Your task to perform on an android device: Is it going to rain tomorrow? Image 0: 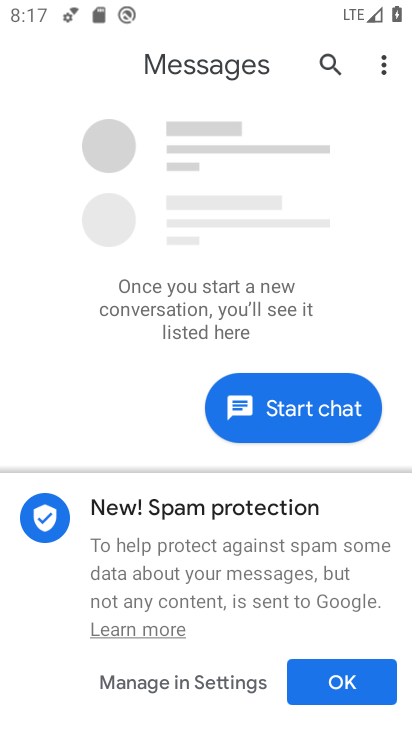
Step 0: click (361, 683)
Your task to perform on an android device: Is it going to rain tomorrow? Image 1: 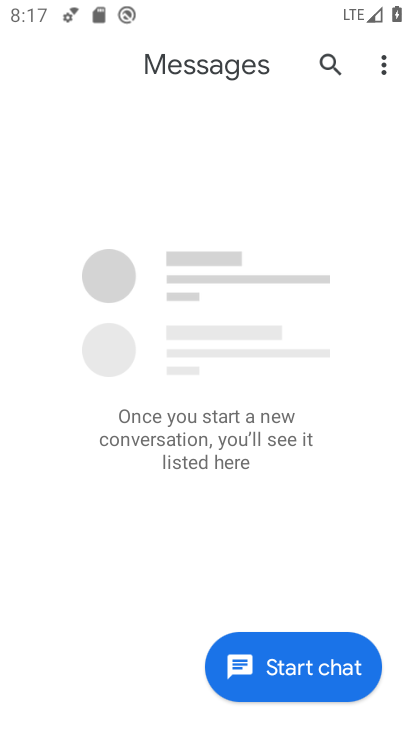
Step 1: press home button
Your task to perform on an android device: Is it going to rain tomorrow? Image 2: 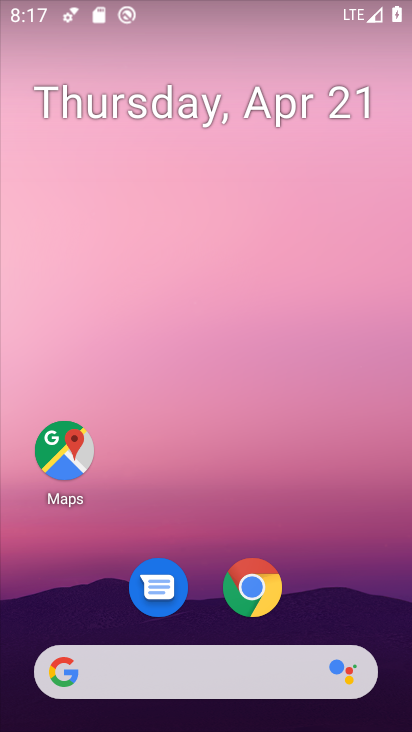
Step 2: drag from (383, 309) to (383, 212)
Your task to perform on an android device: Is it going to rain tomorrow? Image 3: 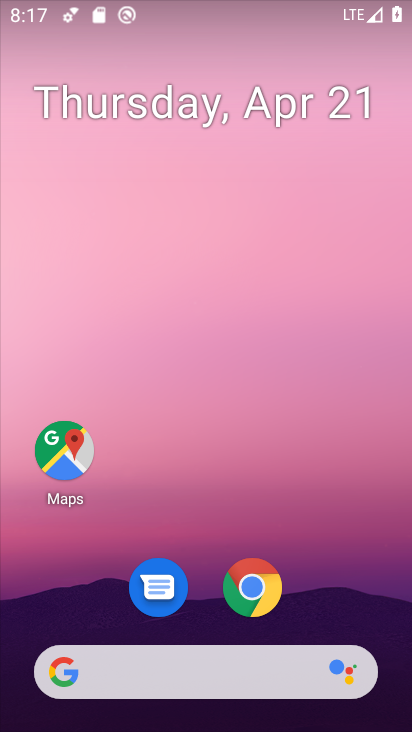
Step 3: drag from (394, 387) to (375, 206)
Your task to perform on an android device: Is it going to rain tomorrow? Image 4: 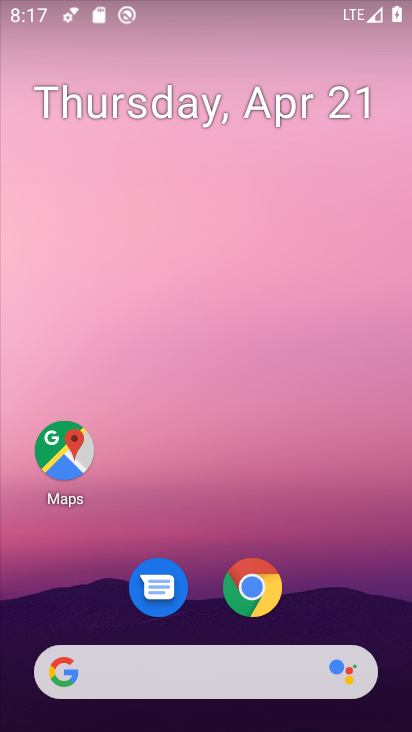
Step 4: drag from (400, 660) to (364, 176)
Your task to perform on an android device: Is it going to rain tomorrow? Image 5: 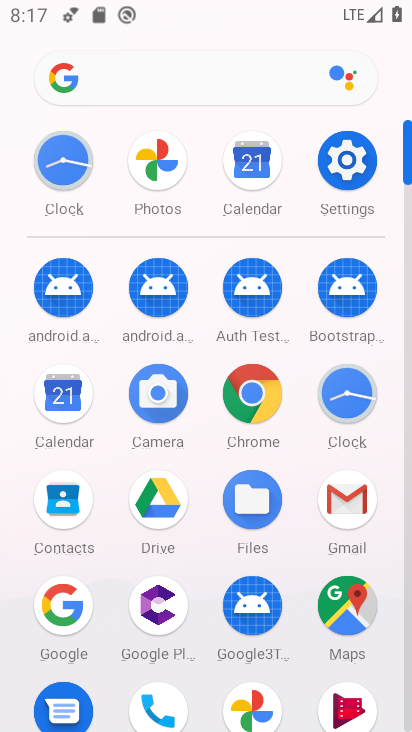
Step 5: click (66, 606)
Your task to perform on an android device: Is it going to rain tomorrow? Image 6: 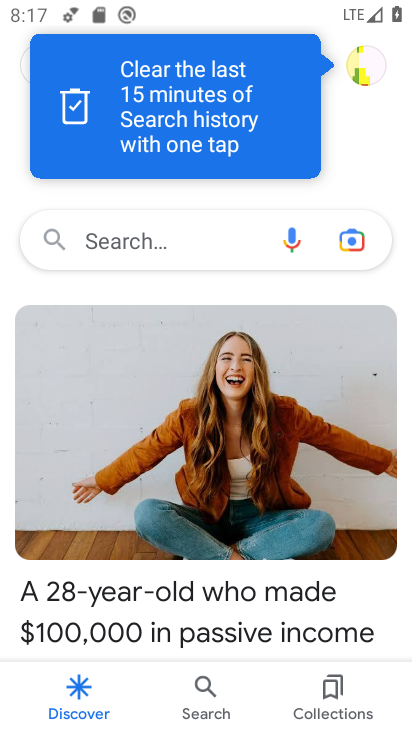
Step 6: drag from (330, 454) to (347, 213)
Your task to perform on an android device: Is it going to rain tomorrow? Image 7: 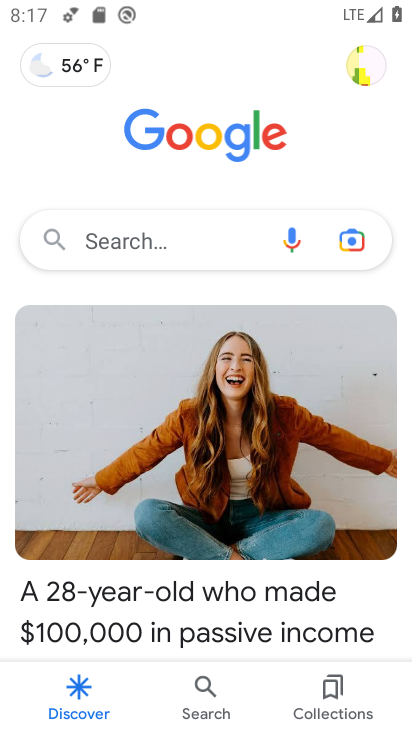
Step 7: click (349, 256)
Your task to perform on an android device: Is it going to rain tomorrow? Image 8: 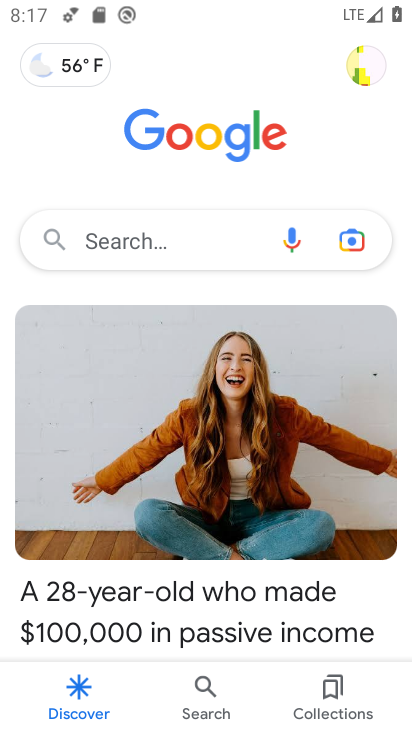
Step 8: drag from (343, 442) to (342, 338)
Your task to perform on an android device: Is it going to rain tomorrow? Image 9: 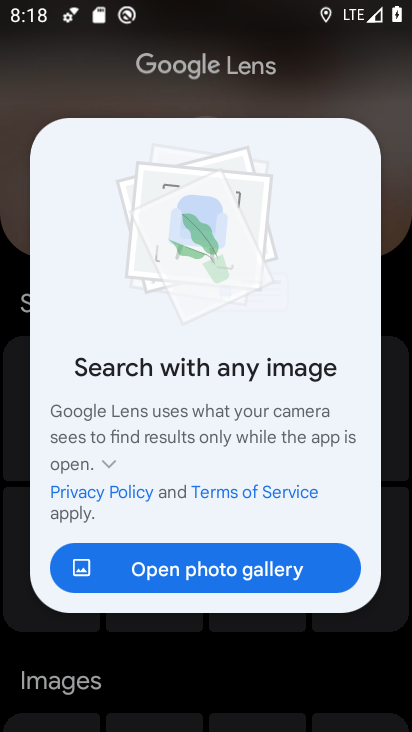
Step 9: press back button
Your task to perform on an android device: Is it going to rain tomorrow? Image 10: 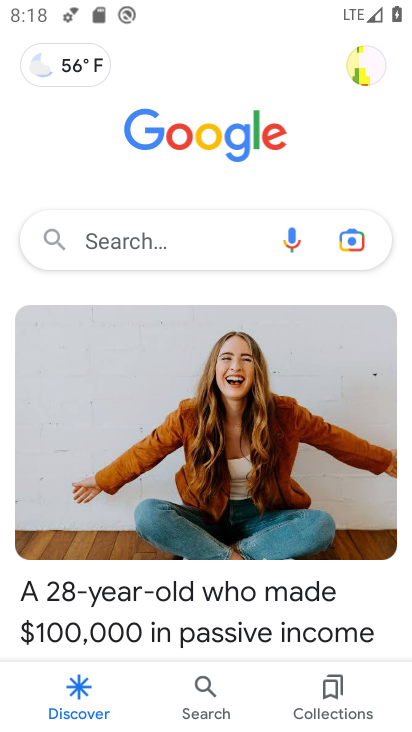
Step 10: click (72, 59)
Your task to perform on an android device: Is it going to rain tomorrow? Image 11: 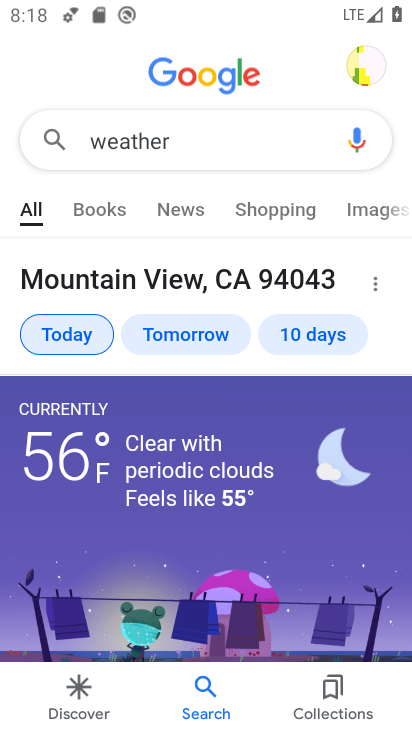
Step 11: task complete